Your task to perform on an android device: check the backup settings in the google photos Image 0: 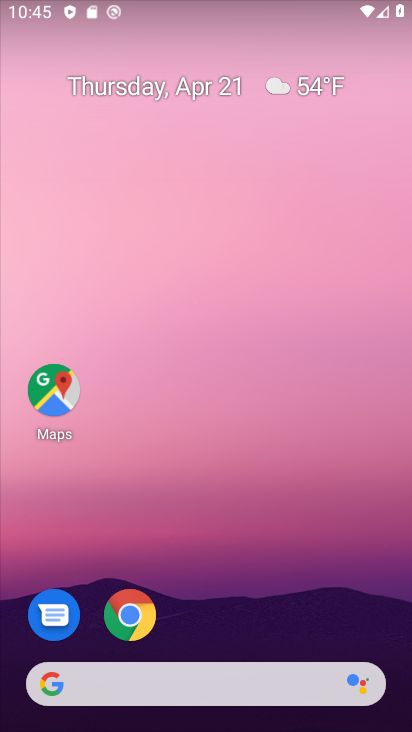
Step 0: drag from (255, 653) to (255, 82)
Your task to perform on an android device: check the backup settings in the google photos Image 1: 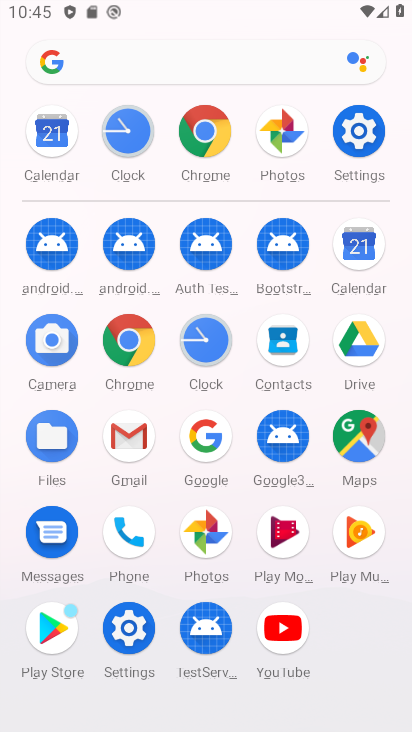
Step 1: click (281, 138)
Your task to perform on an android device: check the backup settings in the google photos Image 2: 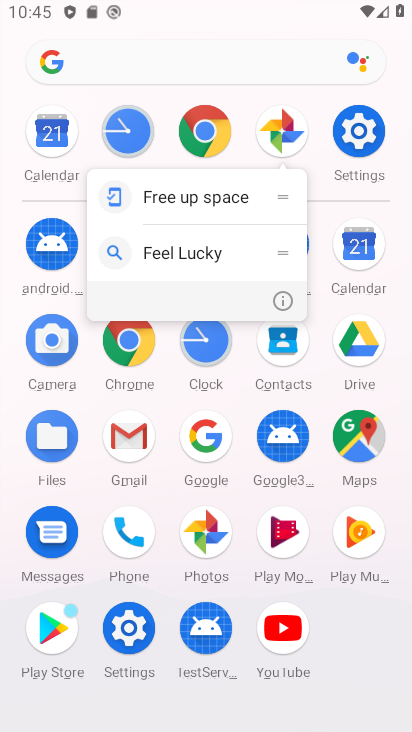
Step 2: click (281, 138)
Your task to perform on an android device: check the backup settings in the google photos Image 3: 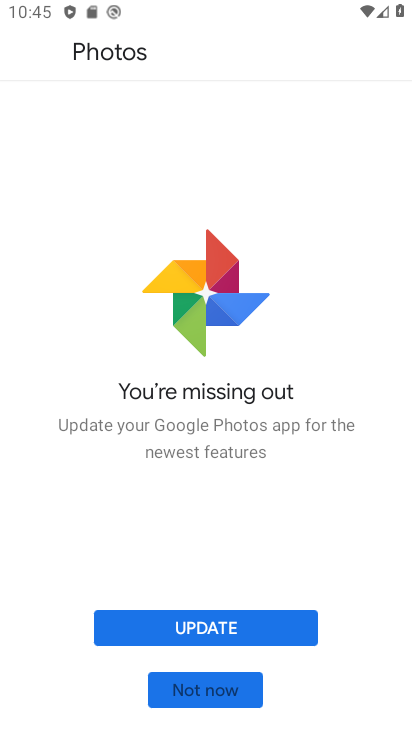
Step 3: click (173, 624)
Your task to perform on an android device: check the backup settings in the google photos Image 4: 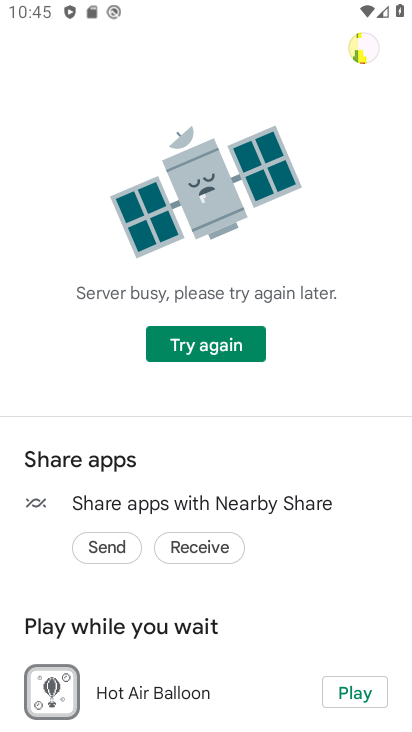
Step 4: click (231, 345)
Your task to perform on an android device: check the backup settings in the google photos Image 5: 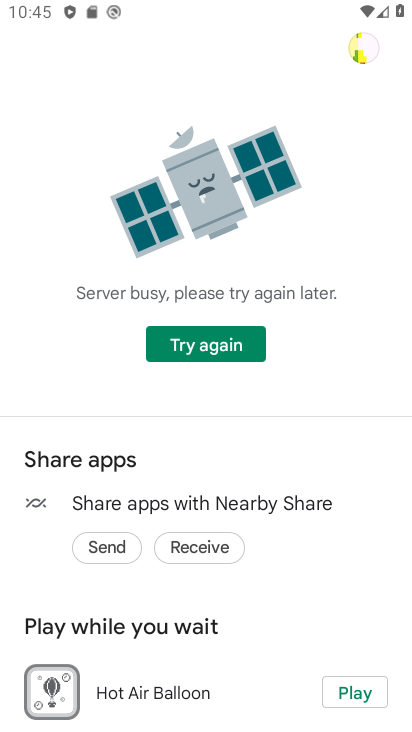
Step 5: click (231, 345)
Your task to perform on an android device: check the backup settings in the google photos Image 6: 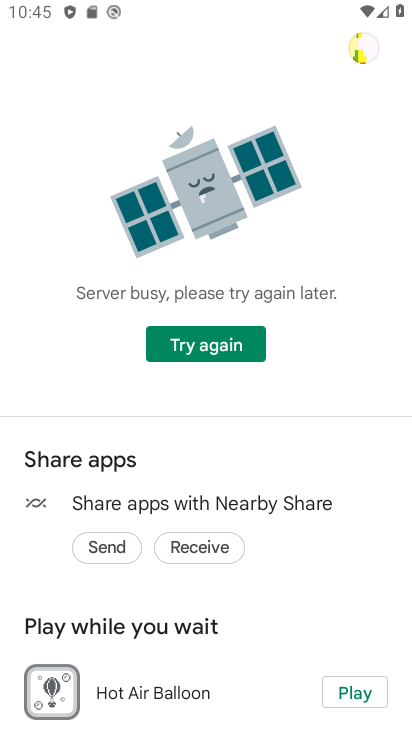
Step 6: click (231, 345)
Your task to perform on an android device: check the backup settings in the google photos Image 7: 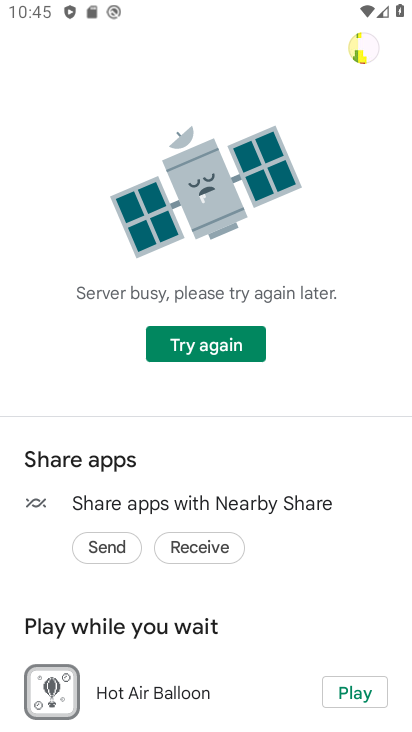
Step 7: click (231, 345)
Your task to perform on an android device: check the backup settings in the google photos Image 8: 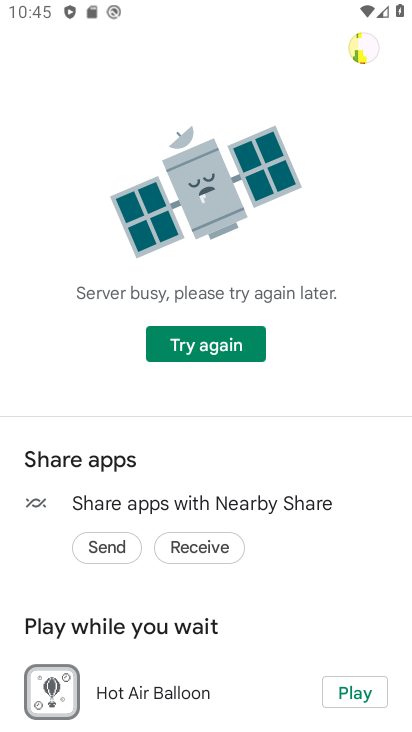
Step 8: click (231, 345)
Your task to perform on an android device: check the backup settings in the google photos Image 9: 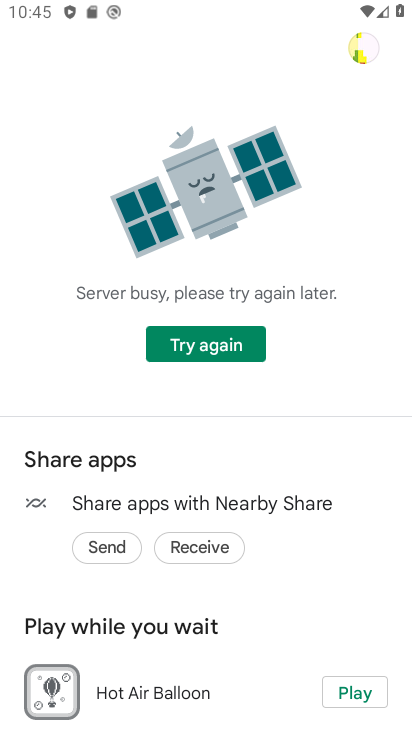
Step 9: click (231, 345)
Your task to perform on an android device: check the backup settings in the google photos Image 10: 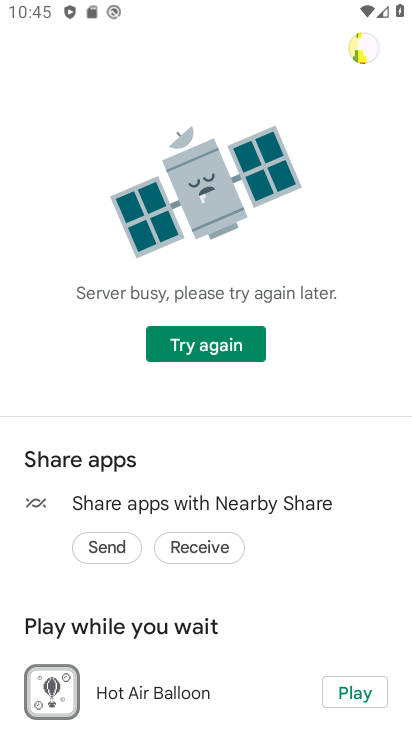
Step 10: click (231, 345)
Your task to perform on an android device: check the backup settings in the google photos Image 11: 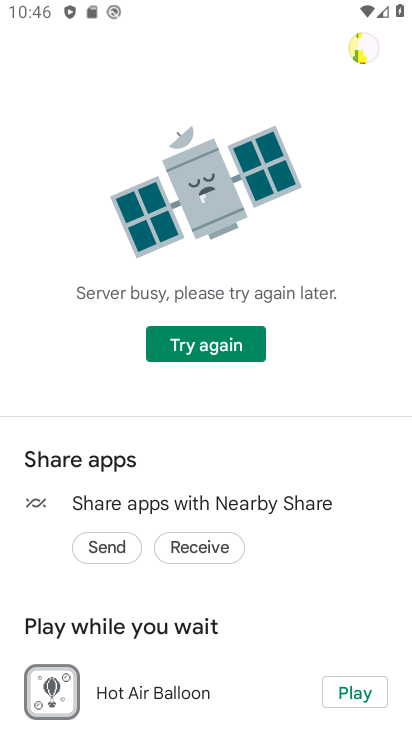
Step 11: click (238, 336)
Your task to perform on an android device: check the backup settings in the google photos Image 12: 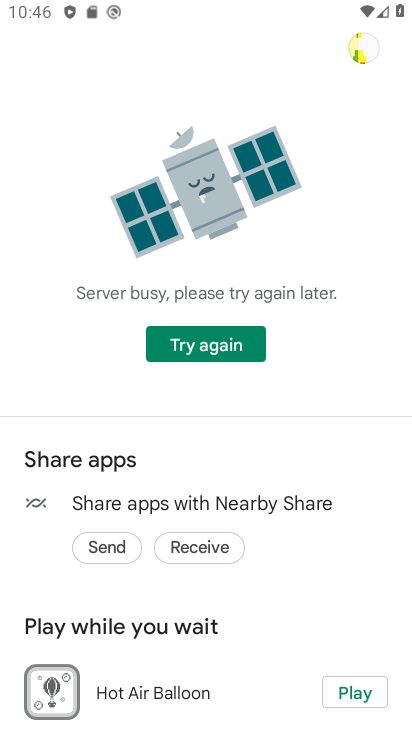
Step 12: click (239, 335)
Your task to perform on an android device: check the backup settings in the google photos Image 13: 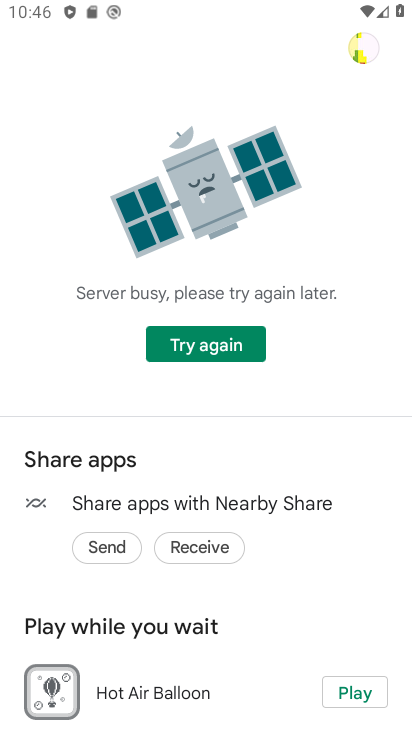
Step 13: task complete